Your task to perform on an android device: Check the news Image 0: 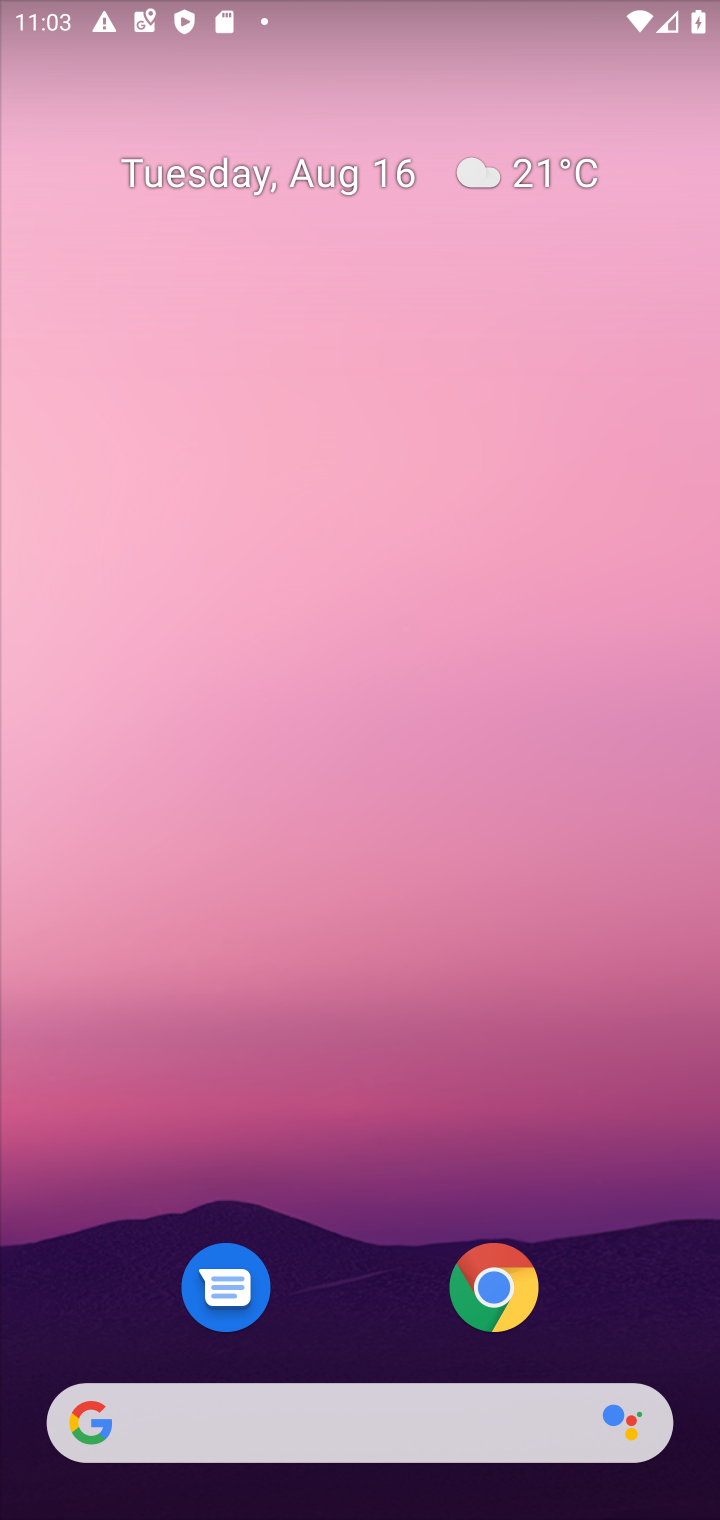
Step 0: drag from (13, 684) to (646, 671)
Your task to perform on an android device: Check the news Image 1: 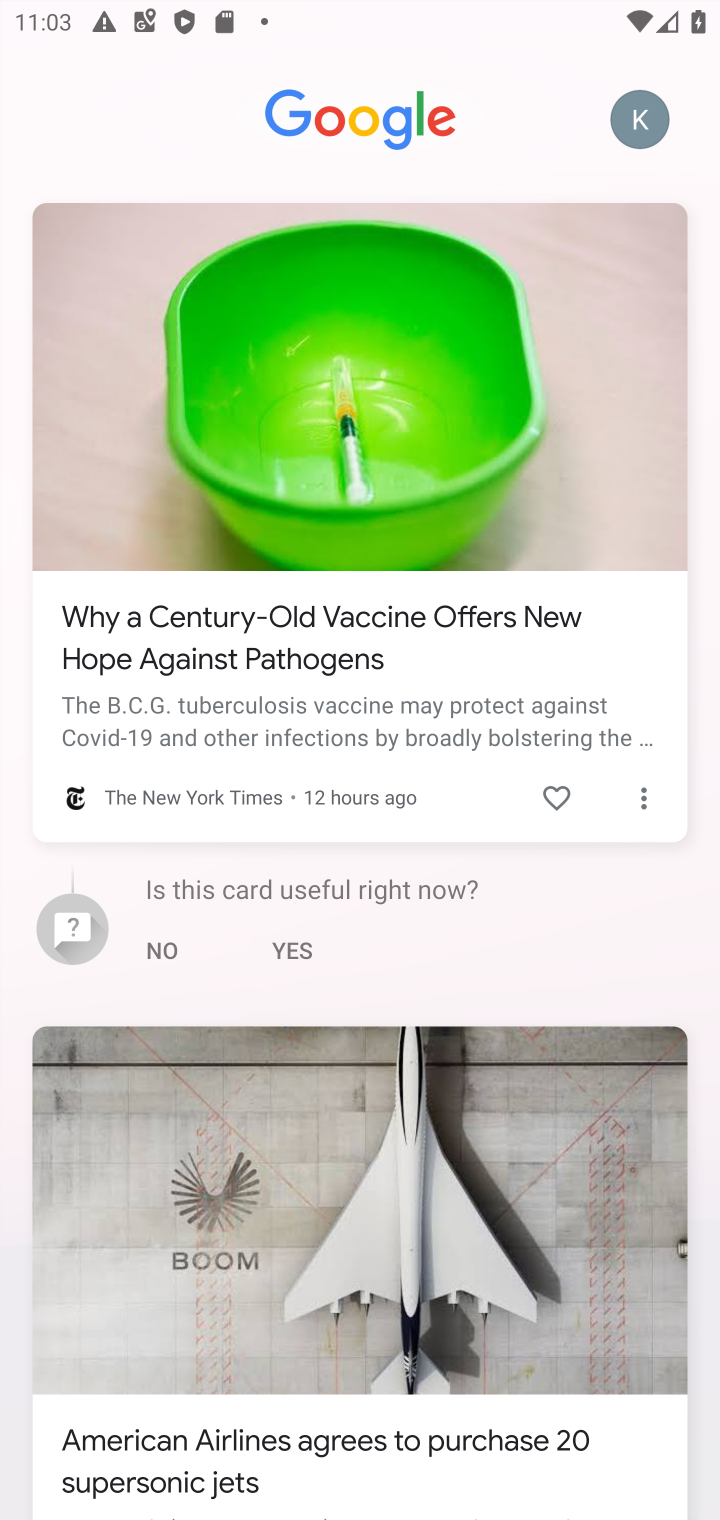
Step 1: task complete